Your task to perform on an android device: Do I have any events tomorrow? Image 0: 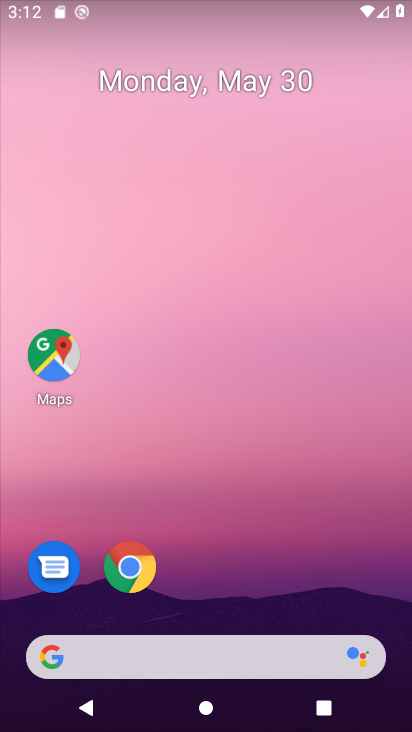
Step 0: drag from (294, 554) to (294, 5)
Your task to perform on an android device: Do I have any events tomorrow? Image 1: 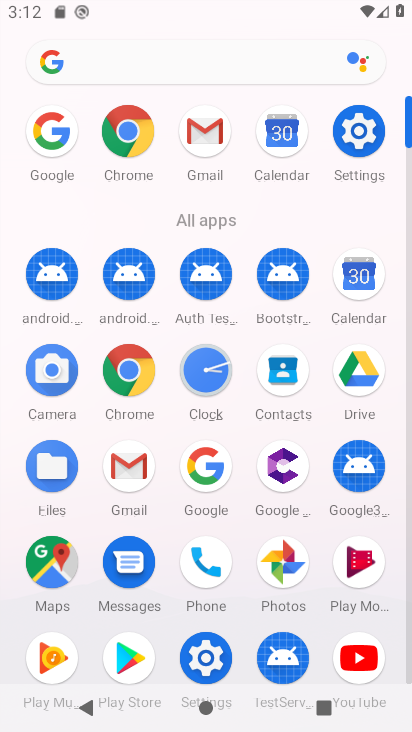
Step 1: click (351, 283)
Your task to perform on an android device: Do I have any events tomorrow? Image 2: 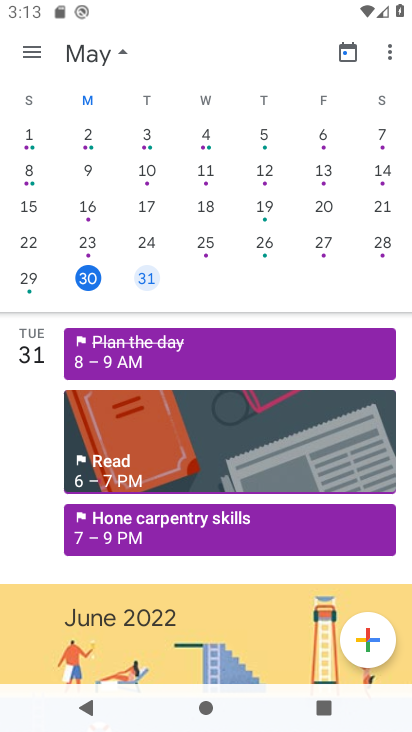
Step 2: task complete